Your task to perform on an android device: Open Google Image 0: 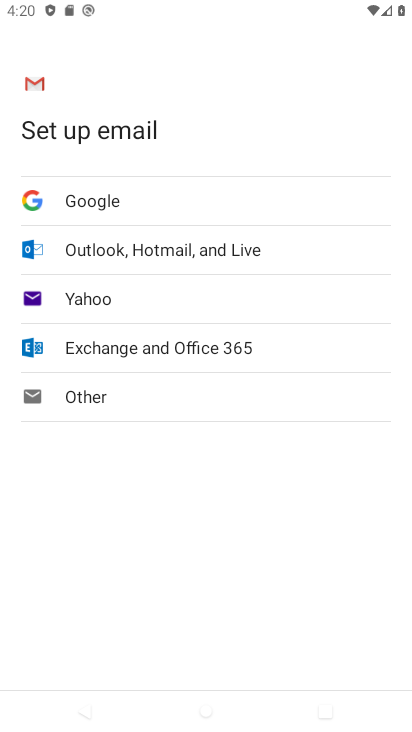
Step 0: press home button
Your task to perform on an android device: Open Google Image 1: 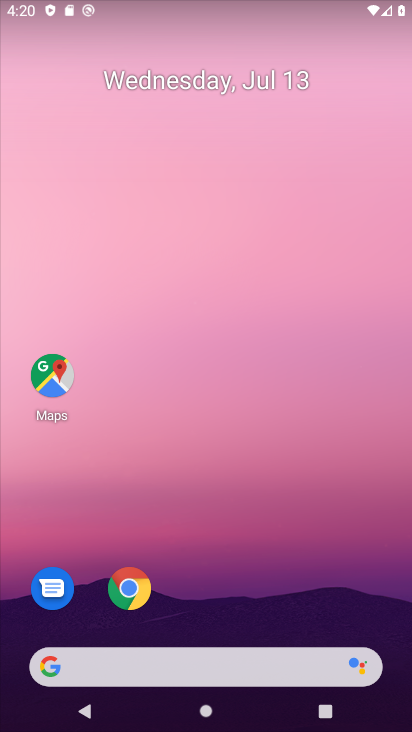
Step 1: click (65, 671)
Your task to perform on an android device: Open Google Image 2: 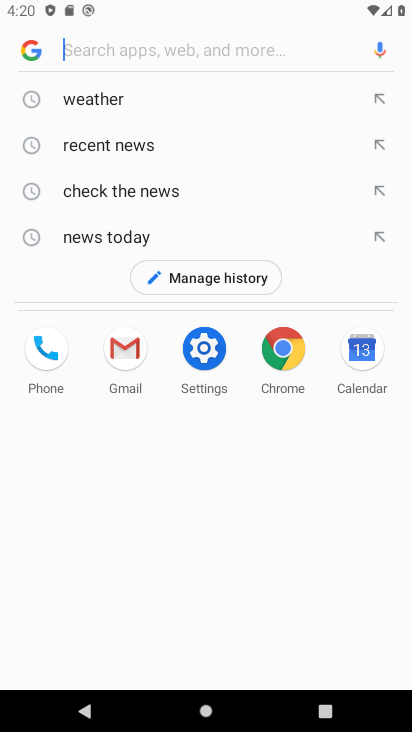
Step 2: task complete